Your task to perform on an android device: change text size in settings app Image 0: 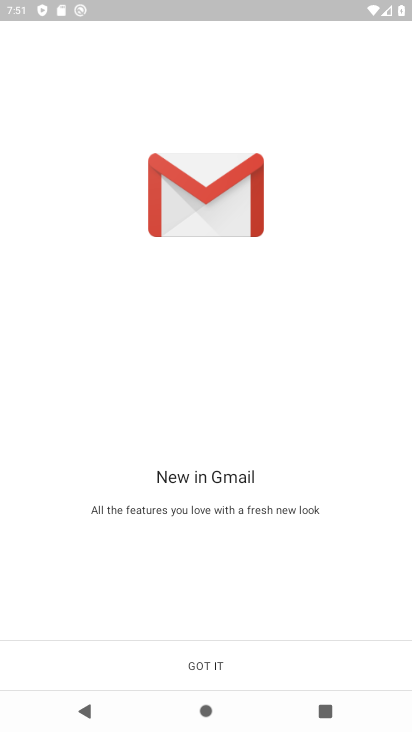
Step 0: press back button
Your task to perform on an android device: change text size in settings app Image 1: 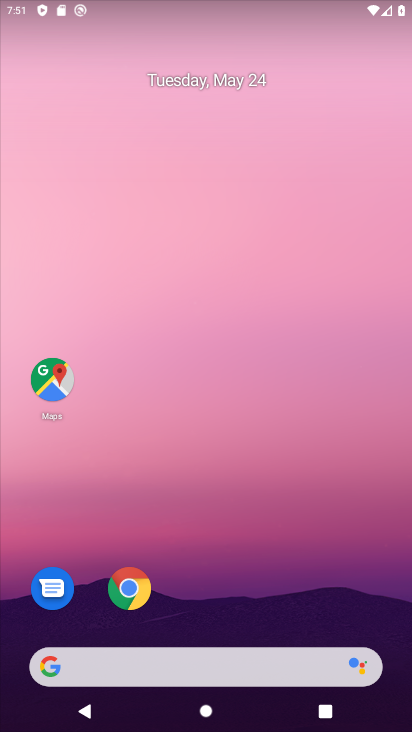
Step 1: drag from (287, 587) to (332, 141)
Your task to perform on an android device: change text size in settings app Image 2: 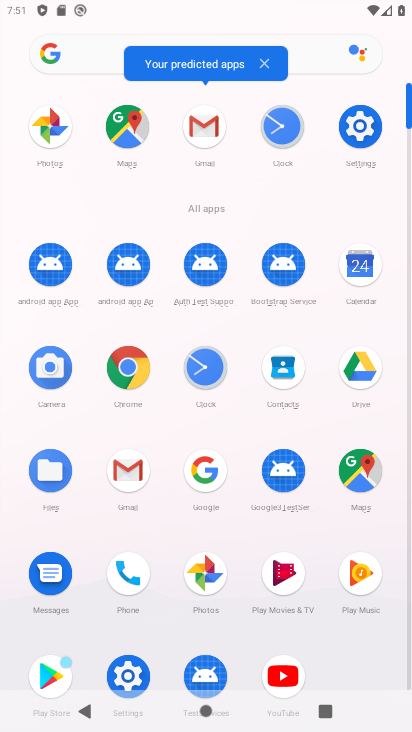
Step 2: click (350, 138)
Your task to perform on an android device: change text size in settings app Image 3: 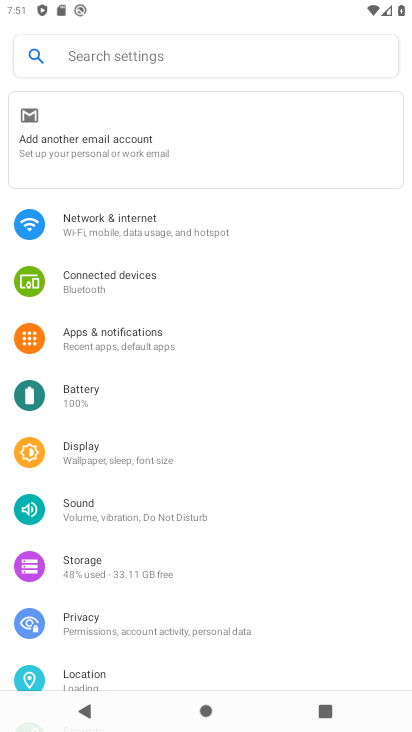
Step 3: click (185, 462)
Your task to perform on an android device: change text size in settings app Image 4: 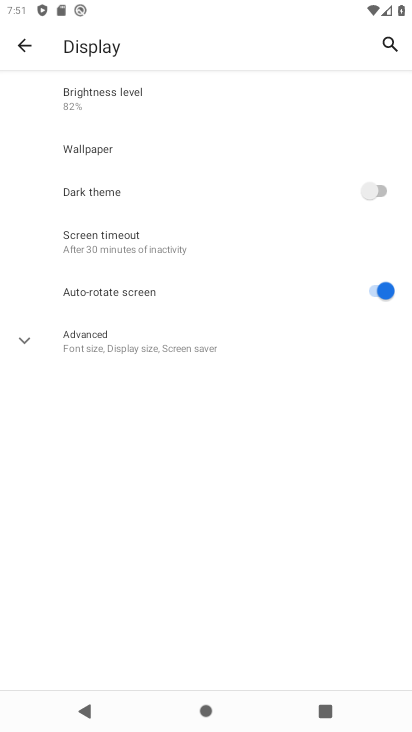
Step 4: click (162, 345)
Your task to perform on an android device: change text size in settings app Image 5: 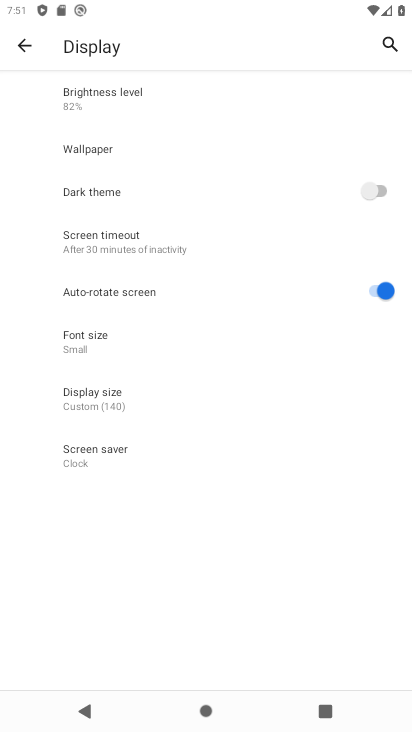
Step 5: click (144, 347)
Your task to perform on an android device: change text size in settings app Image 6: 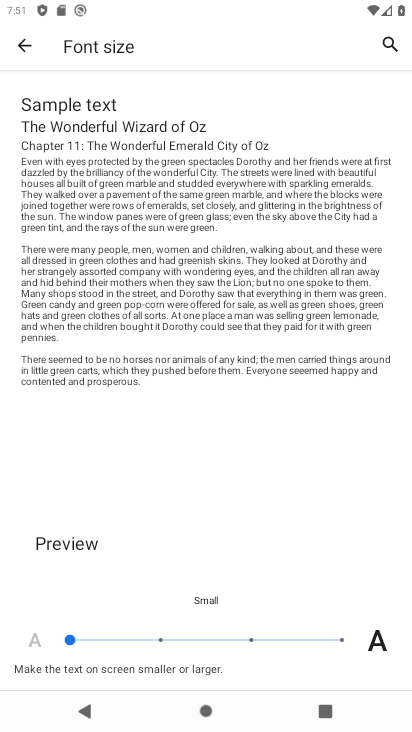
Step 6: click (154, 642)
Your task to perform on an android device: change text size in settings app Image 7: 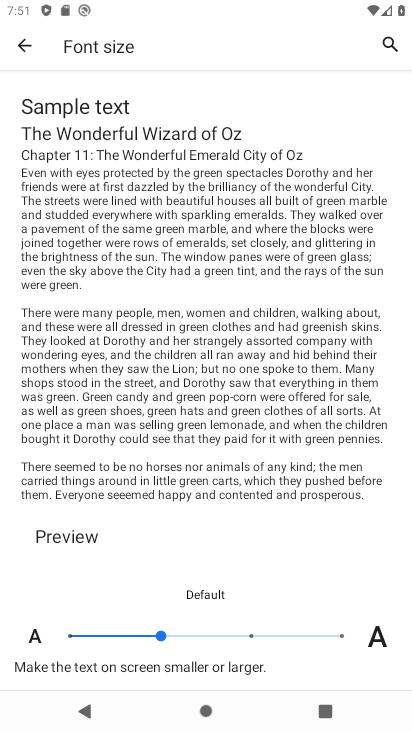
Step 7: task complete